Your task to perform on an android device: add a contact in the contacts app Image 0: 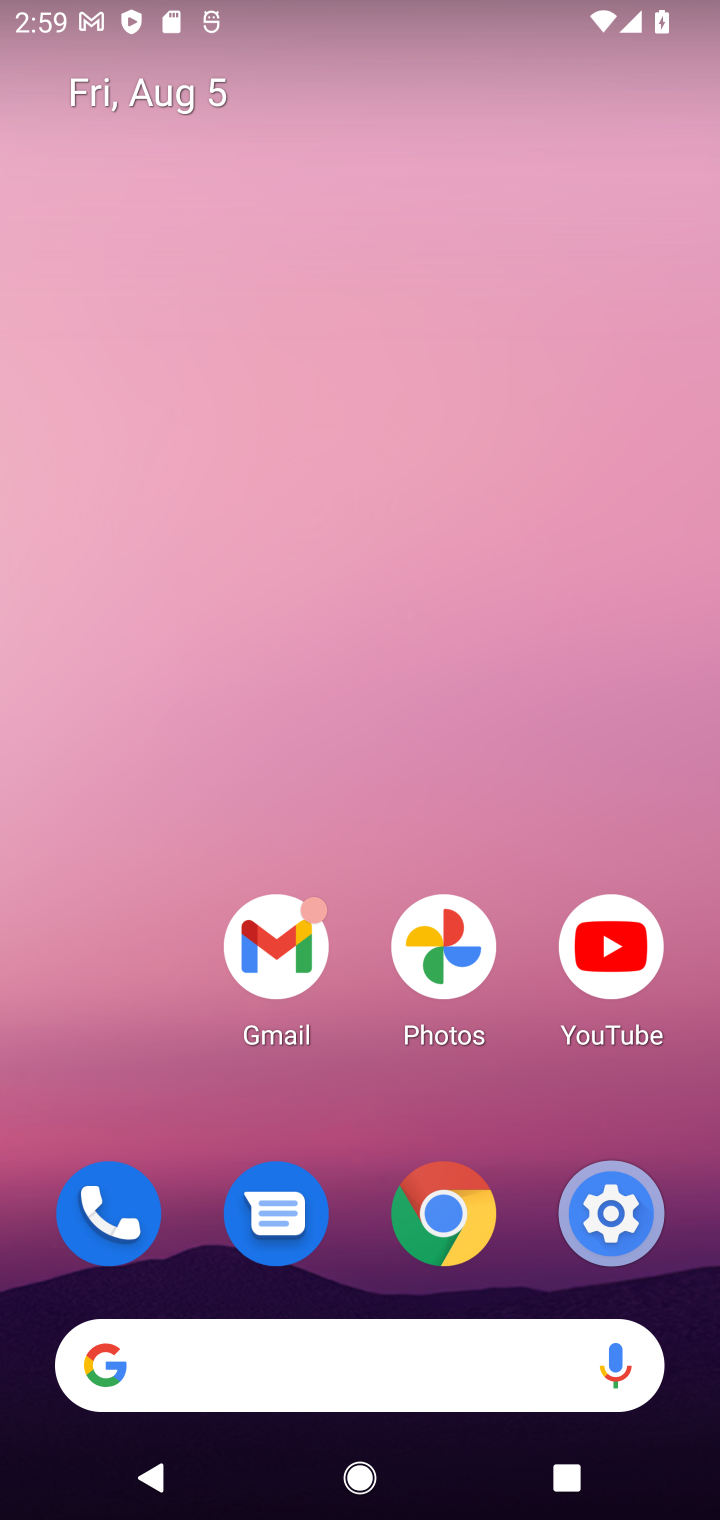
Step 0: drag from (272, 221) to (327, 11)
Your task to perform on an android device: add a contact in the contacts app Image 1: 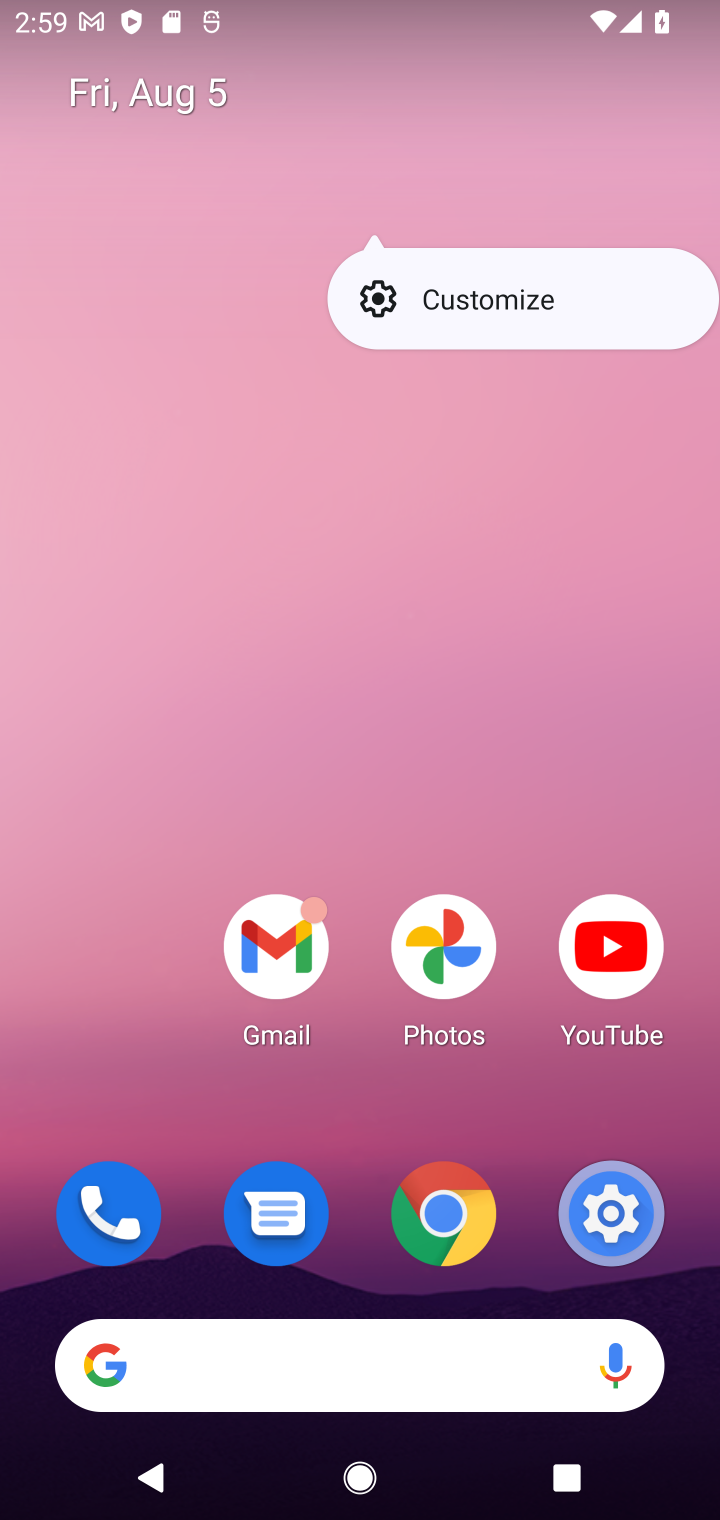
Step 1: drag from (145, 1029) to (217, 85)
Your task to perform on an android device: add a contact in the contacts app Image 2: 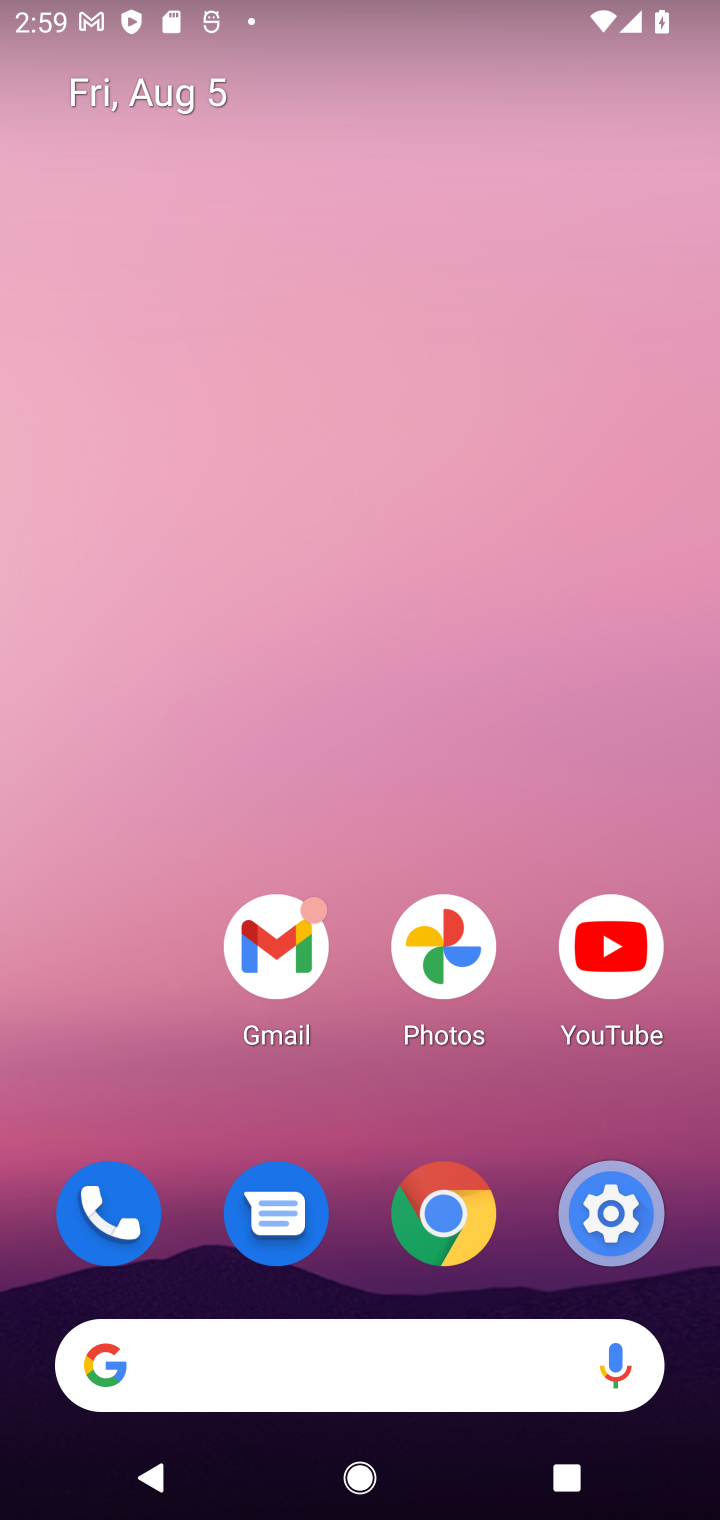
Step 2: drag from (181, 1039) to (254, 72)
Your task to perform on an android device: add a contact in the contacts app Image 3: 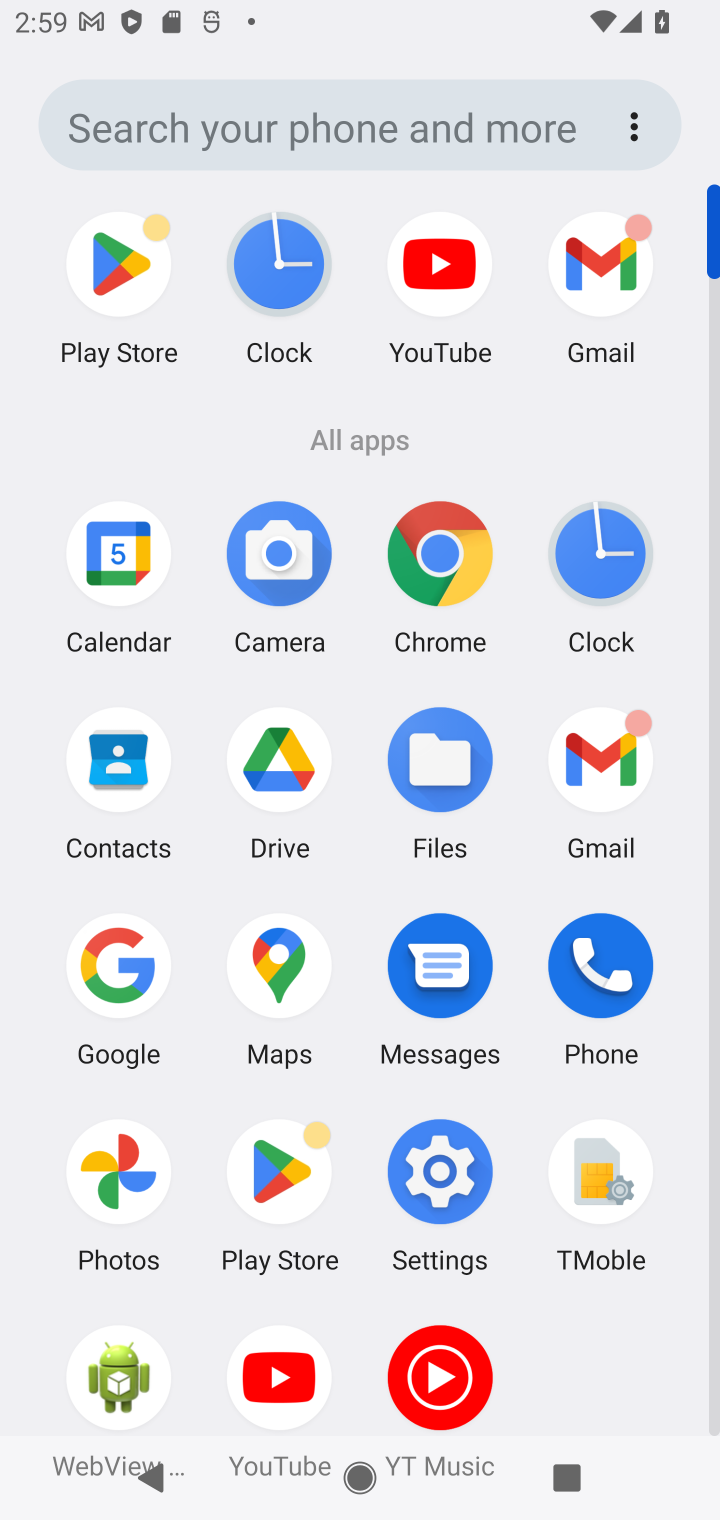
Step 3: click (111, 755)
Your task to perform on an android device: add a contact in the contacts app Image 4: 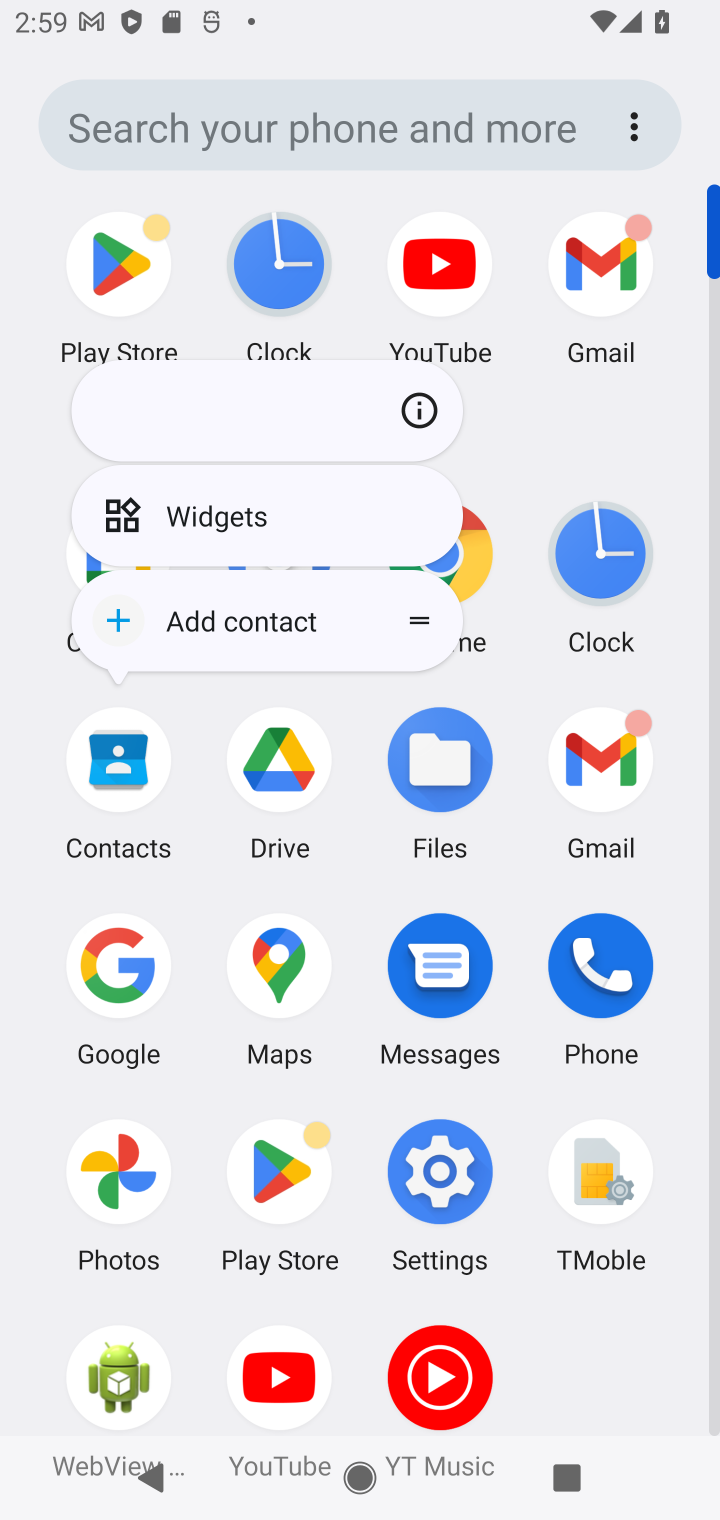
Step 4: click (111, 758)
Your task to perform on an android device: add a contact in the contacts app Image 5: 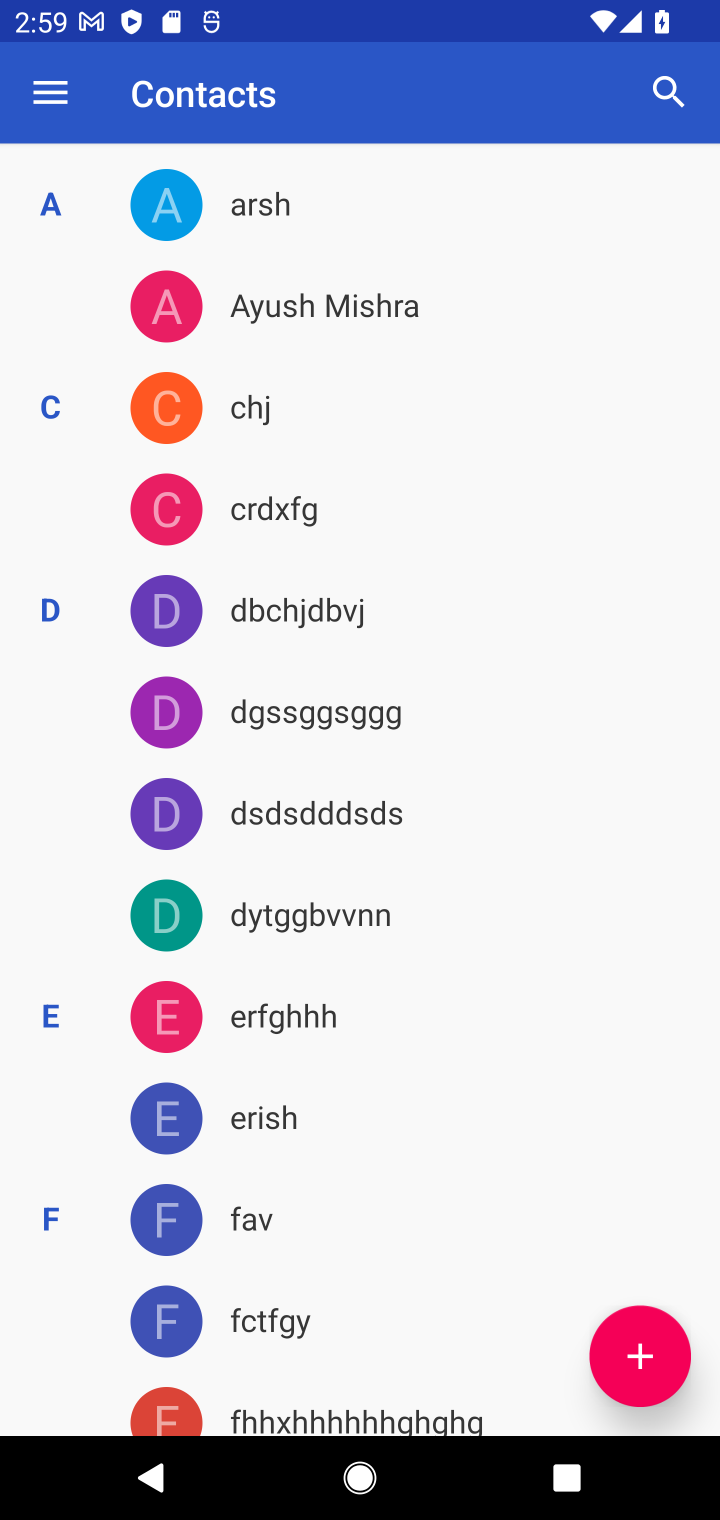
Step 5: click (645, 1343)
Your task to perform on an android device: add a contact in the contacts app Image 6: 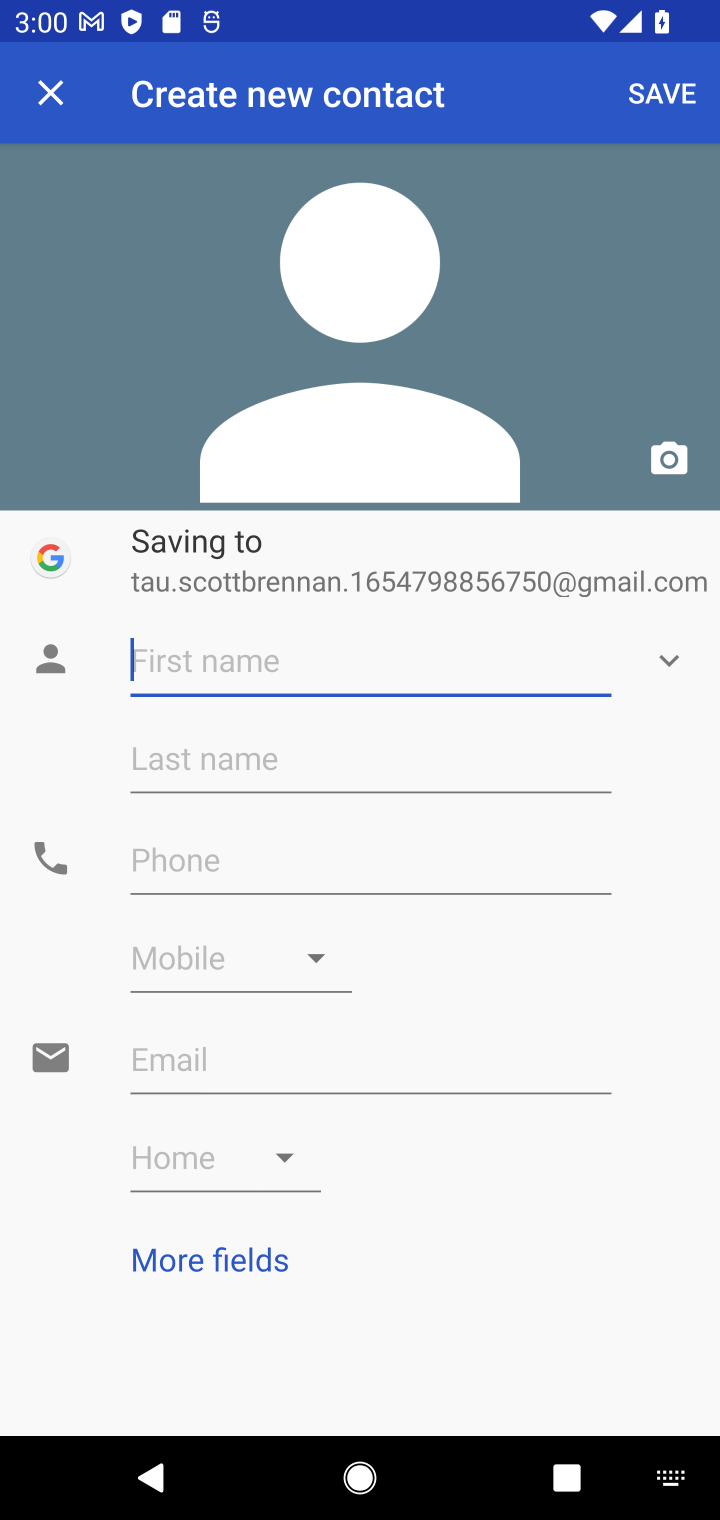
Step 6: type "Om"
Your task to perform on an android device: add a contact in the contacts app Image 7: 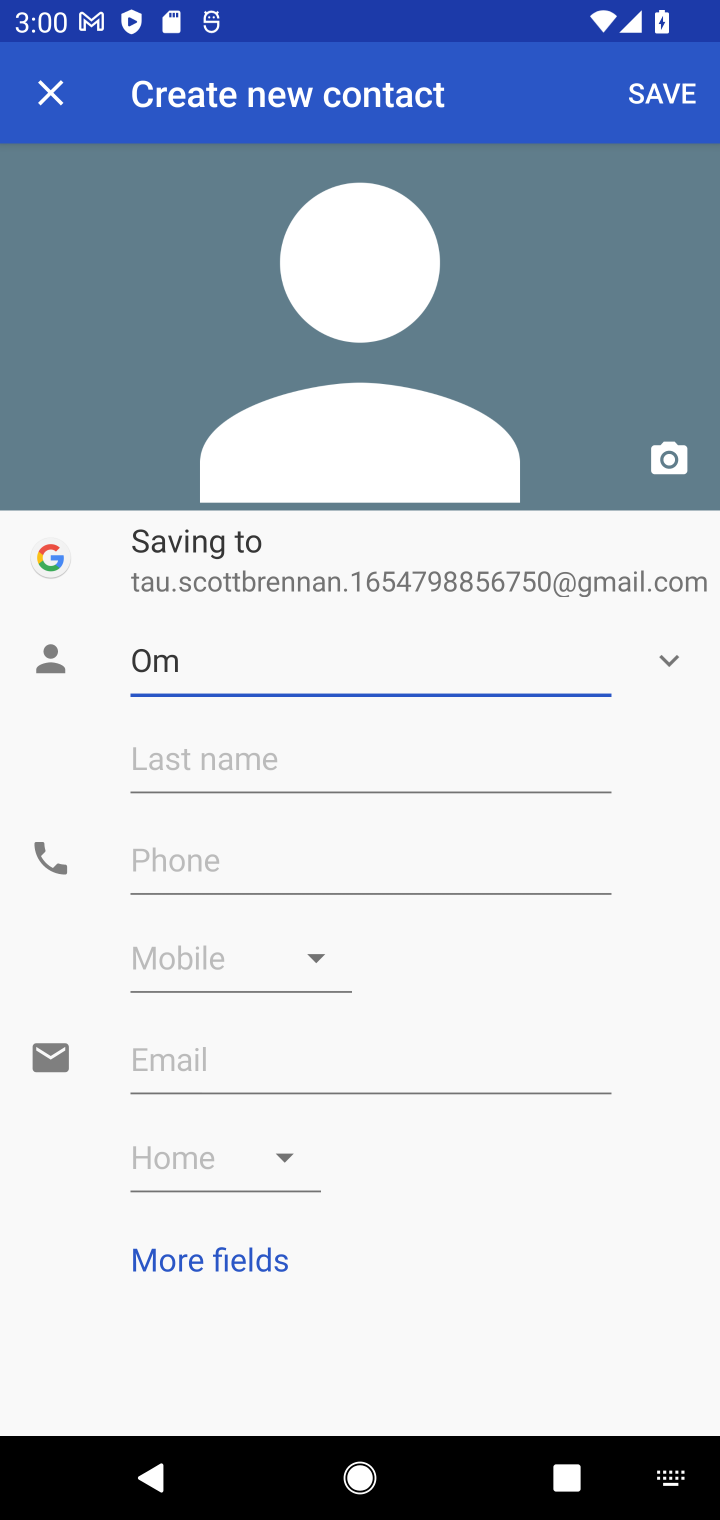
Step 7: click (396, 870)
Your task to perform on an android device: add a contact in the contacts app Image 8: 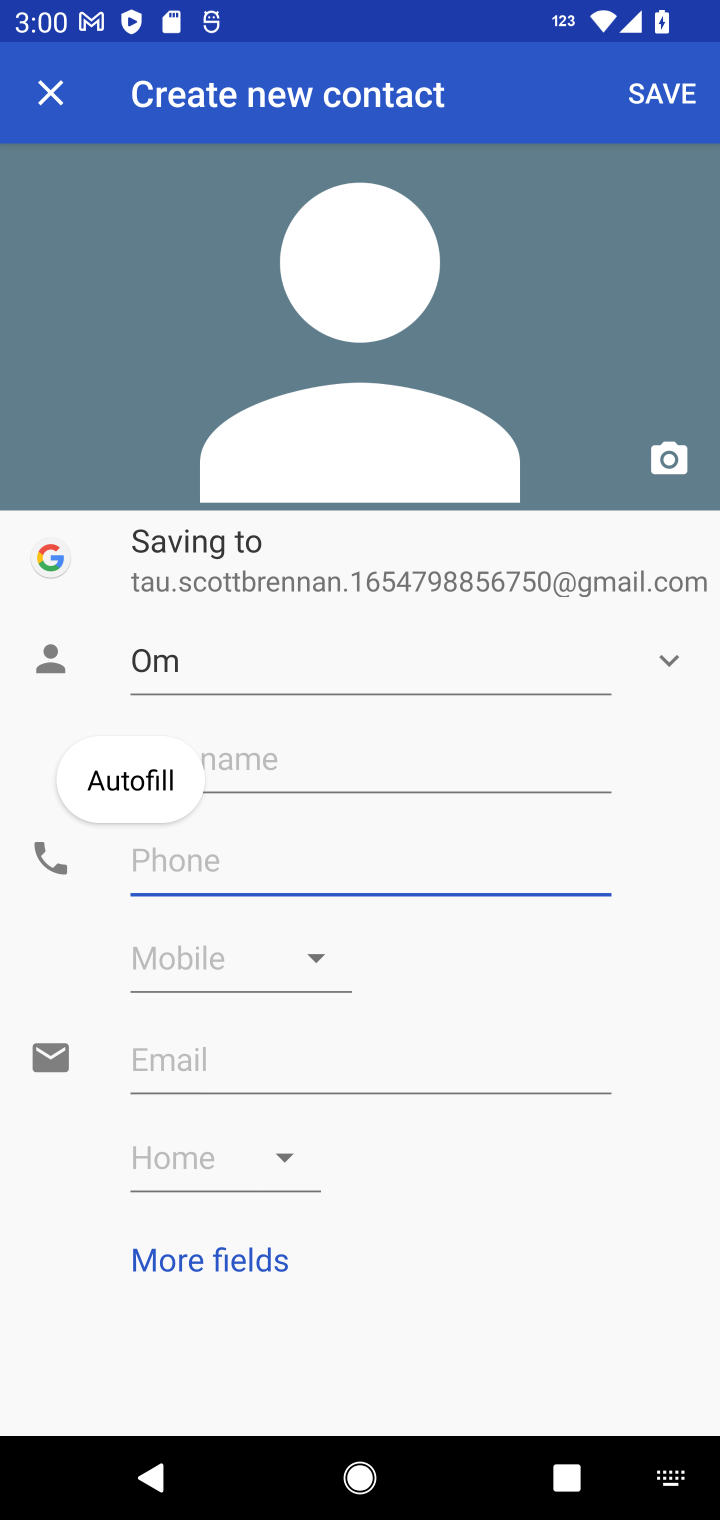
Step 8: type "+919999000011"
Your task to perform on an android device: add a contact in the contacts app Image 9: 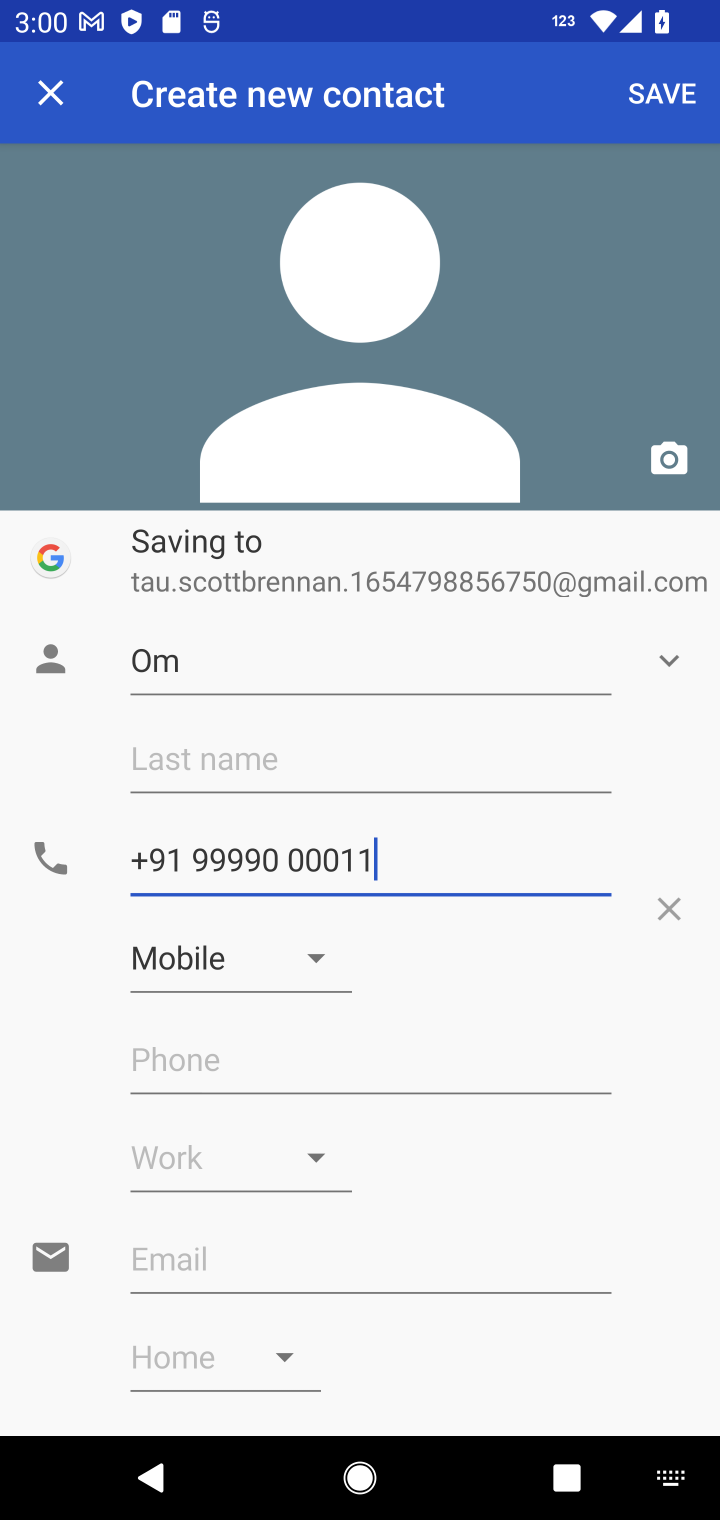
Step 9: click (664, 91)
Your task to perform on an android device: add a contact in the contacts app Image 10: 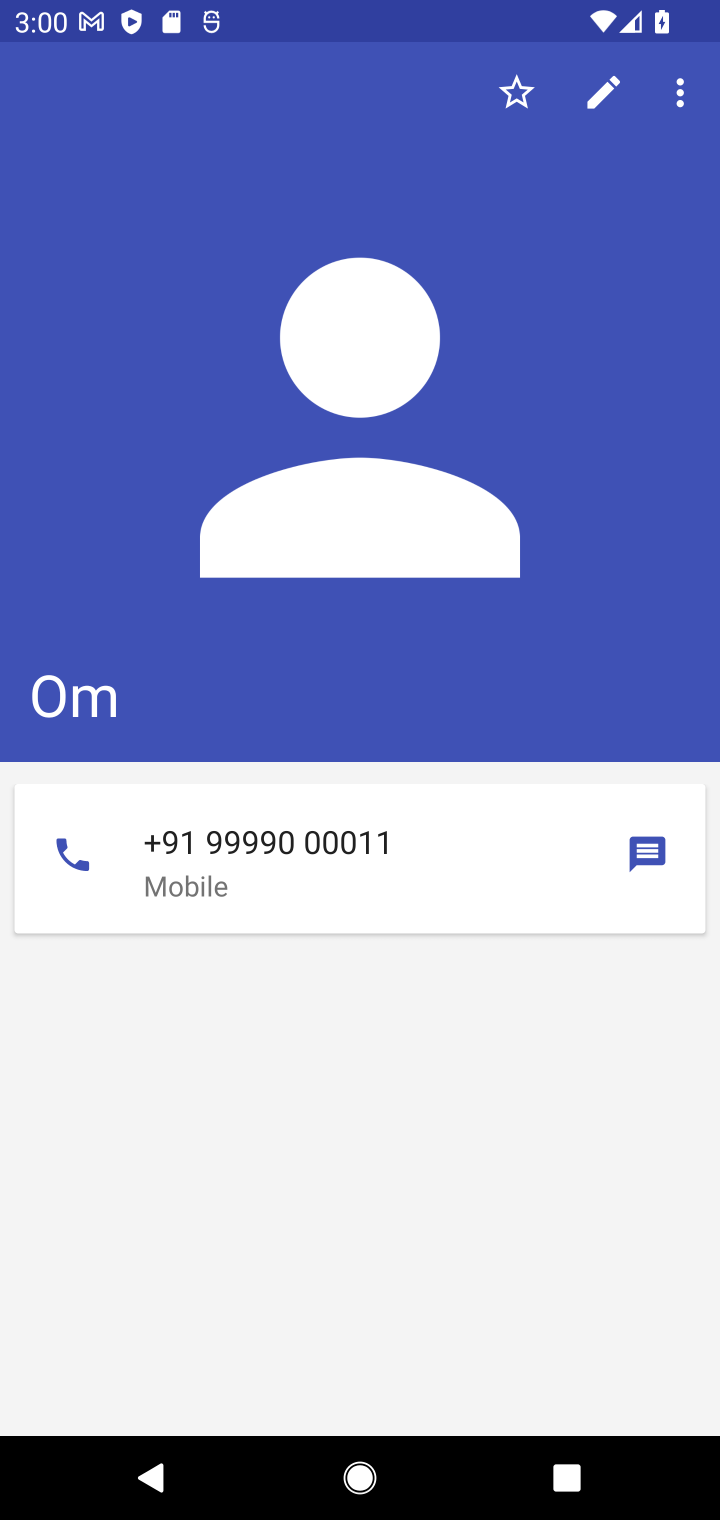
Step 10: task complete